Your task to perform on an android device: Open CNN.com Image 0: 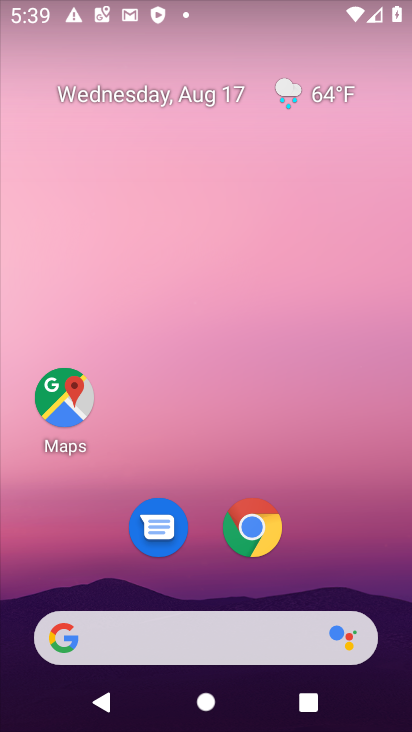
Step 0: drag from (160, 554) to (191, 124)
Your task to perform on an android device: Open CNN.com Image 1: 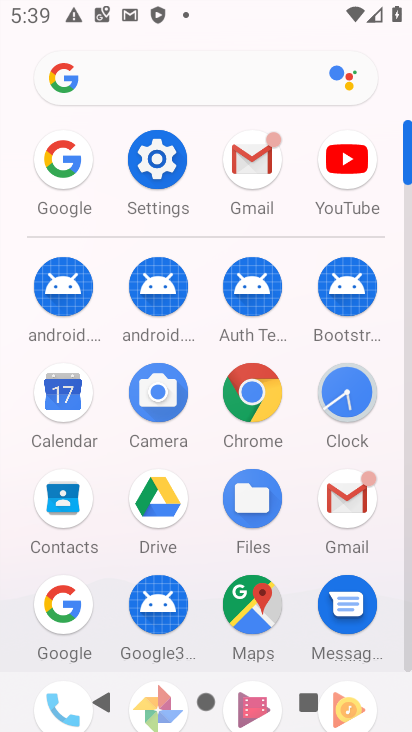
Step 1: drag from (208, 629) to (210, 183)
Your task to perform on an android device: Open CNN.com Image 2: 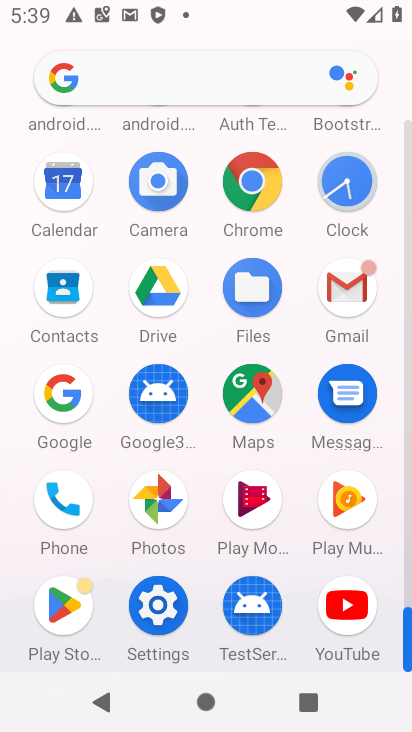
Step 2: click (68, 382)
Your task to perform on an android device: Open CNN.com Image 3: 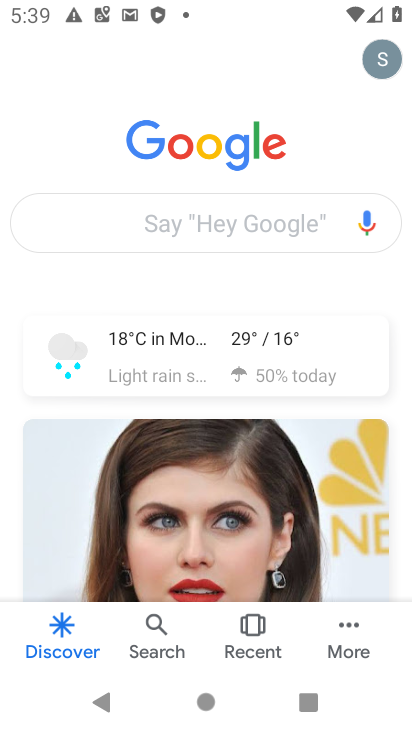
Step 3: click (135, 230)
Your task to perform on an android device: Open CNN.com Image 4: 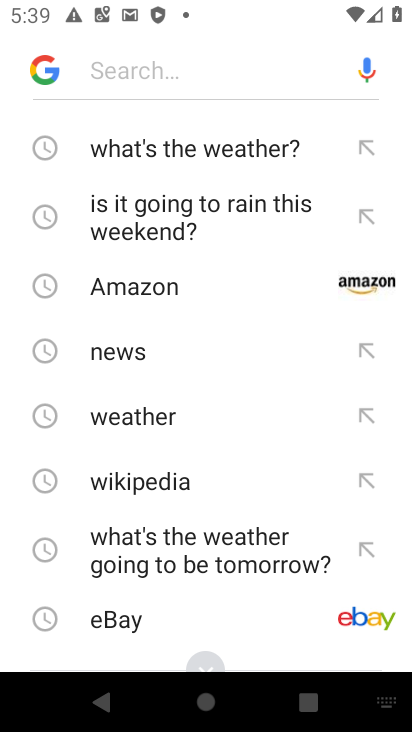
Step 4: drag from (162, 596) to (183, 105)
Your task to perform on an android device: Open CNN.com Image 5: 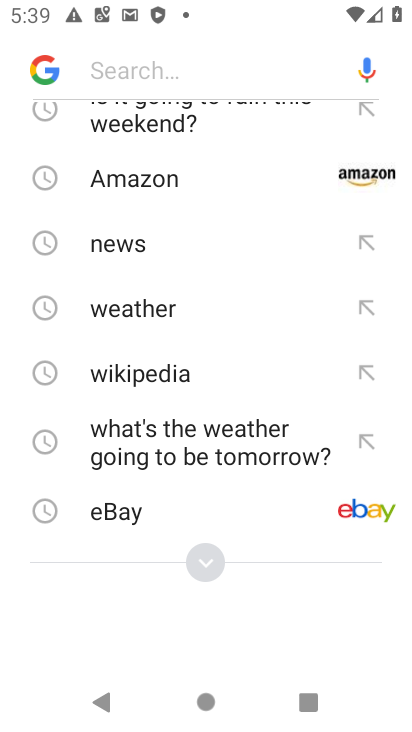
Step 5: click (203, 568)
Your task to perform on an android device: Open CNN.com Image 6: 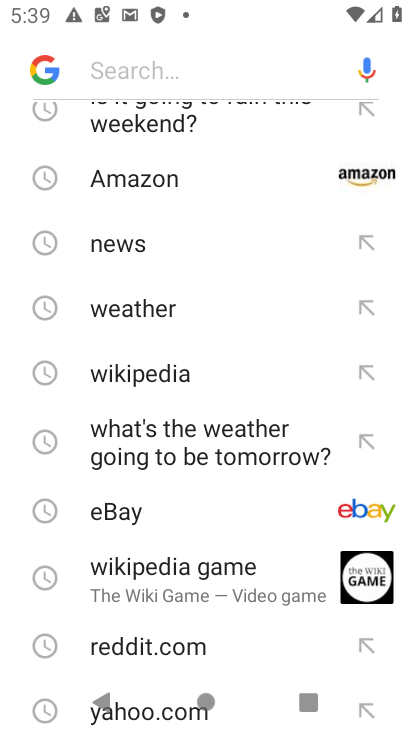
Step 6: drag from (121, 646) to (116, 222)
Your task to perform on an android device: Open CNN.com Image 7: 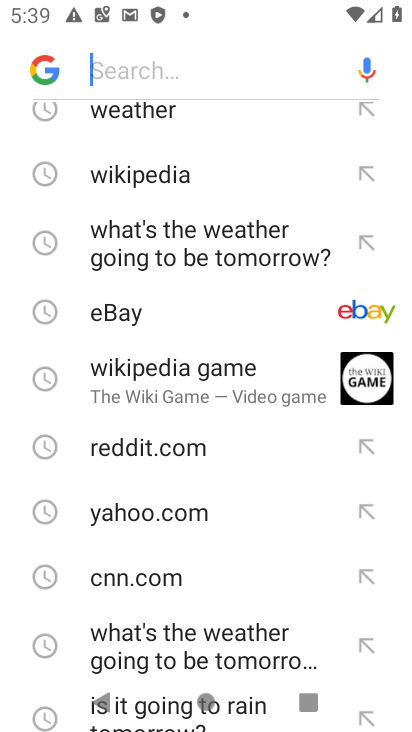
Step 7: click (128, 578)
Your task to perform on an android device: Open CNN.com Image 8: 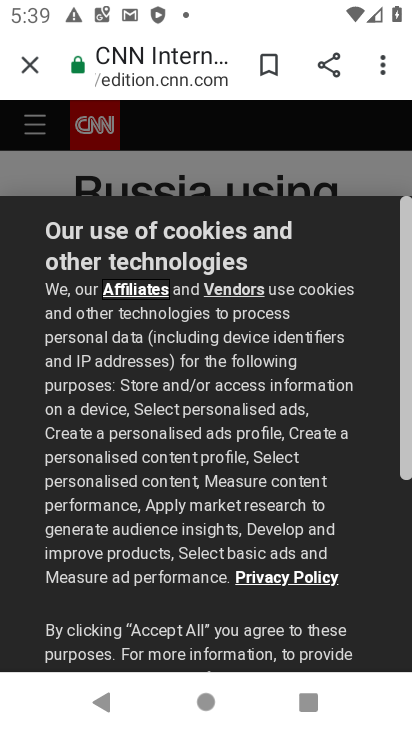
Step 8: task complete